Your task to perform on an android device: turn on translation in the chrome app Image 0: 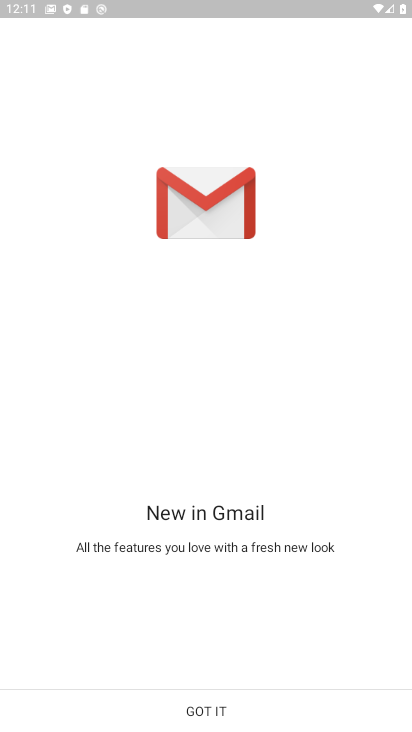
Step 0: press home button
Your task to perform on an android device: turn on translation in the chrome app Image 1: 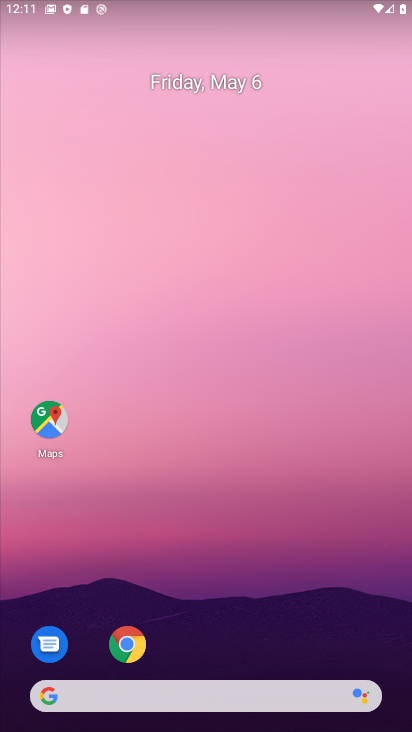
Step 1: drag from (221, 710) to (235, 74)
Your task to perform on an android device: turn on translation in the chrome app Image 2: 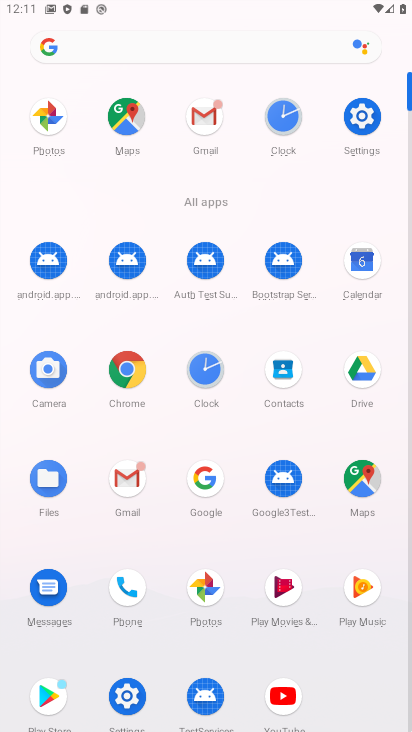
Step 2: click (118, 360)
Your task to perform on an android device: turn on translation in the chrome app Image 3: 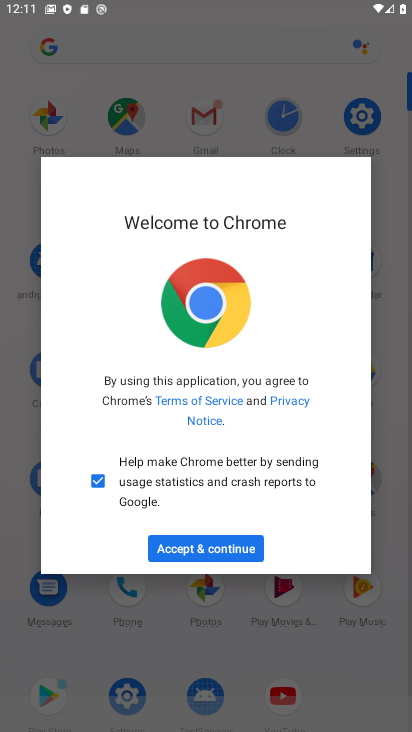
Step 3: click (214, 669)
Your task to perform on an android device: turn on translation in the chrome app Image 4: 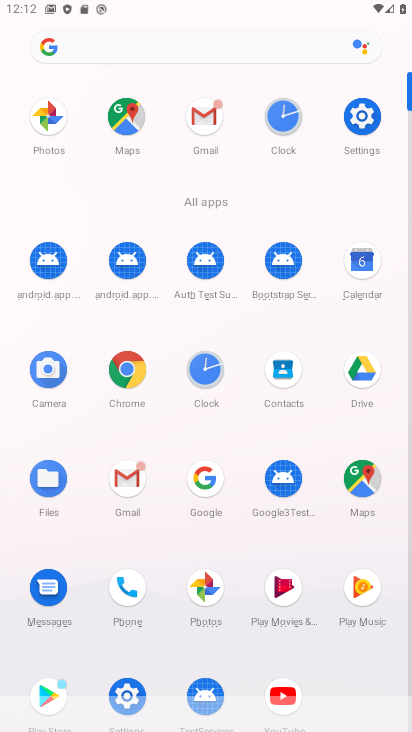
Step 4: click (129, 359)
Your task to perform on an android device: turn on translation in the chrome app Image 5: 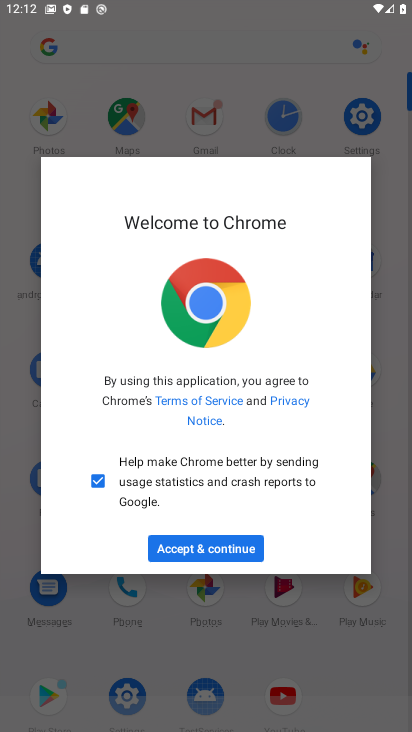
Step 5: click (219, 554)
Your task to perform on an android device: turn on translation in the chrome app Image 6: 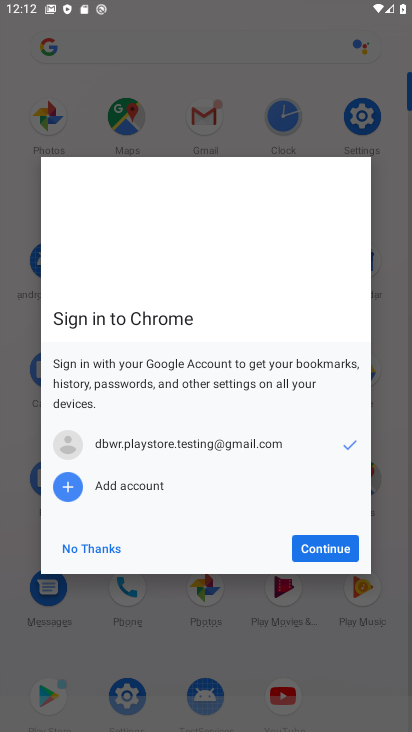
Step 6: click (116, 544)
Your task to perform on an android device: turn on translation in the chrome app Image 7: 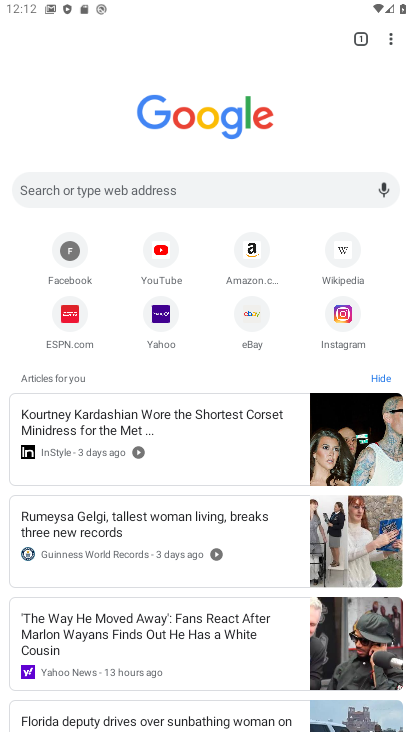
Step 7: drag from (389, 35) to (238, 329)
Your task to perform on an android device: turn on translation in the chrome app Image 8: 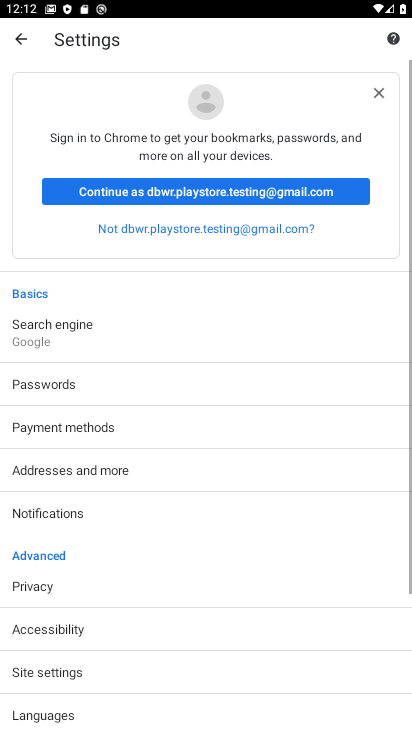
Step 8: drag from (132, 677) to (153, 350)
Your task to perform on an android device: turn on translation in the chrome app Image 9: 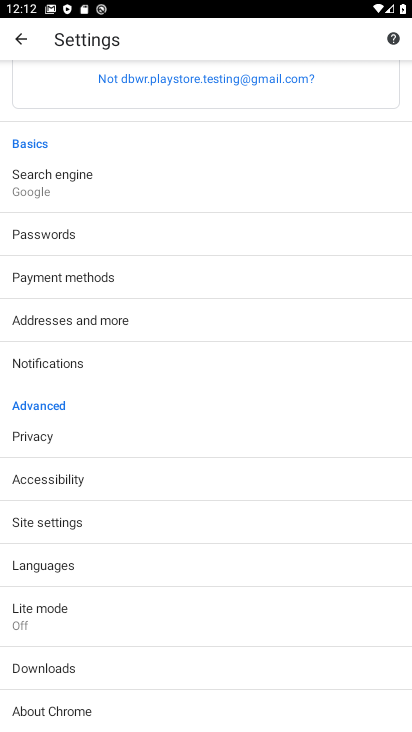
Step 9: click (42, 569)
Your task to perform on an android device: turn on translation in the chrome app Image 10: 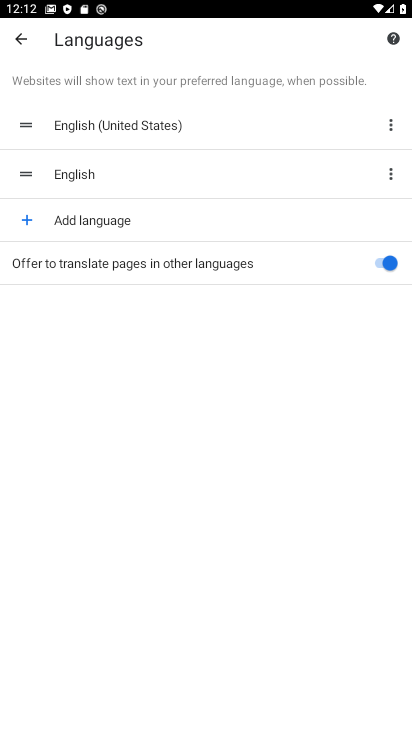
Step 10: task complete